Your task to perform on an android device: turn off data saver in the chrome app Image 0: 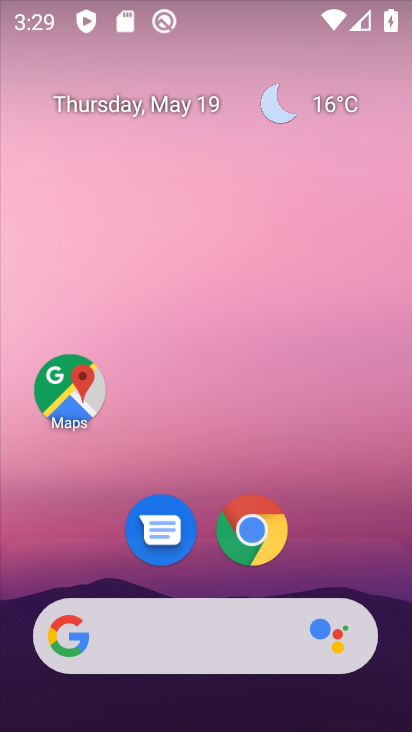
Step 0: click (273, 532)
Your task to perform on an android device: turn off data saver in the chrome app Image 1: 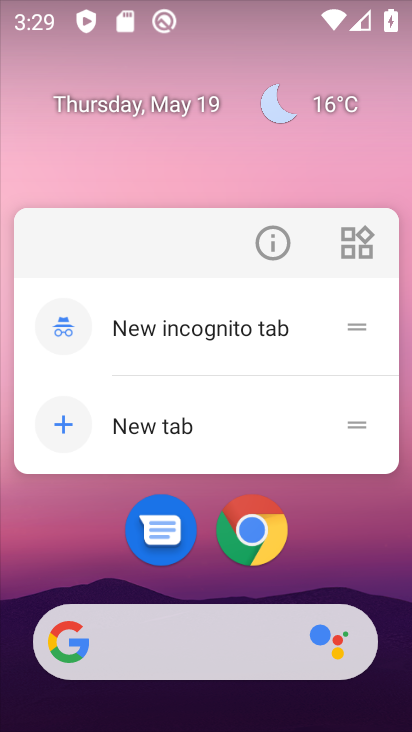
Step 1: click (257, 553)
Your task to perform on an android device: turn off data saver in the chrome app Image 2: 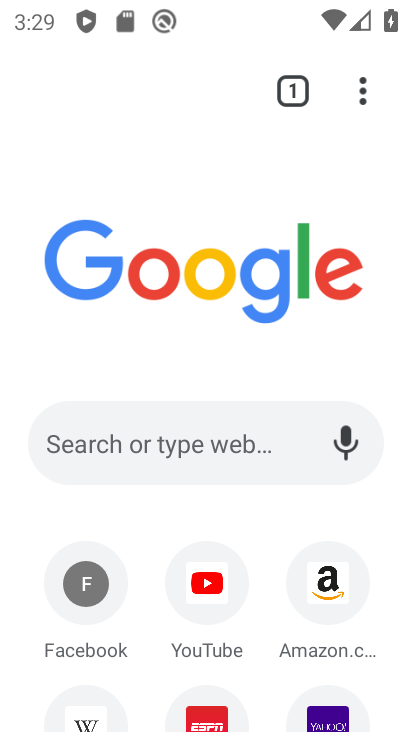
Step 2: drag from (364, 106) to (208, 560)
Your task to perform on an android device: turn off data saver in the chrome app Image 3: 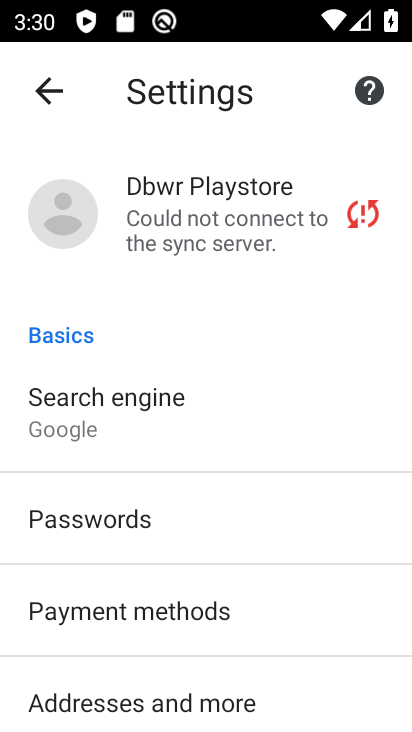
Step 3: drag from (220, 614) to (261, 168)
Your task to perform on an android device: turn off data saver in the chrome app Image 4: 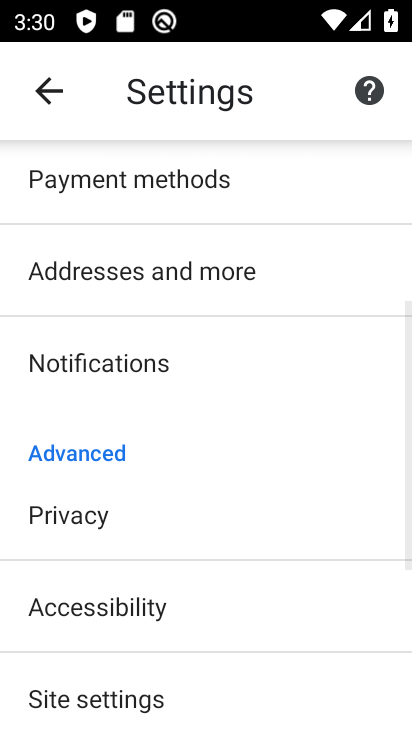
Step 4: drag from (195, 665) to (193, 329)
Your task to perform on an android device: turn off data saver in the chrome app Image 5: 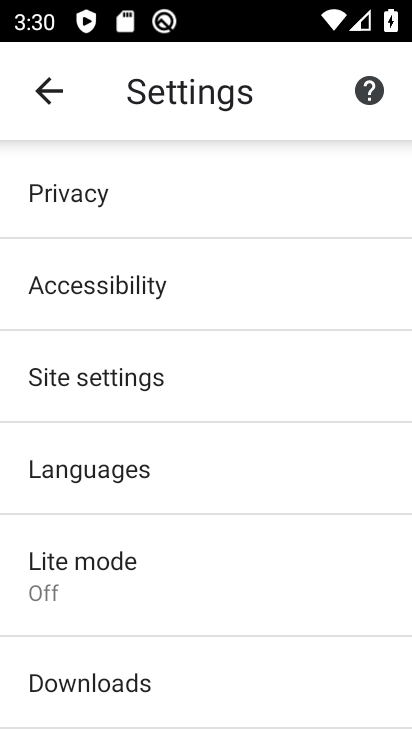
Step 5: click (117, 577)
Your task to perform on an android device: turn off data saver in the chrome app Image 6: 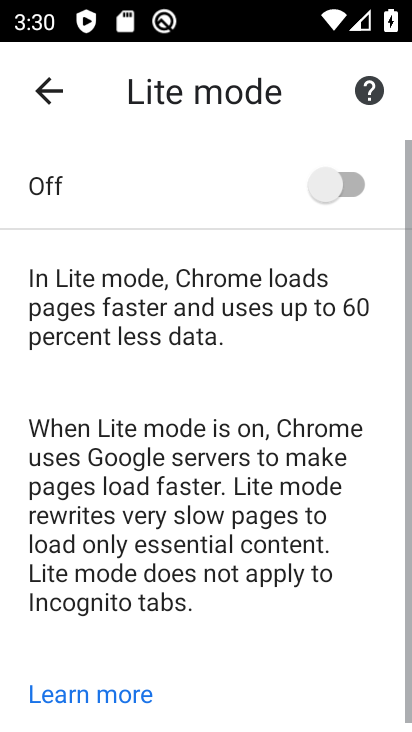
Step 6: task complete